Your task to perform on an android device: open device folders in google photos Image 0: 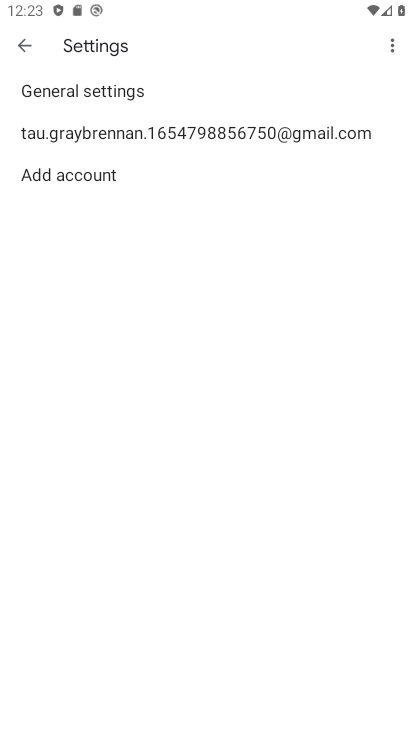
Step 0: press home button
Your task to perform on an android device: open device folders in google photos Image 1: 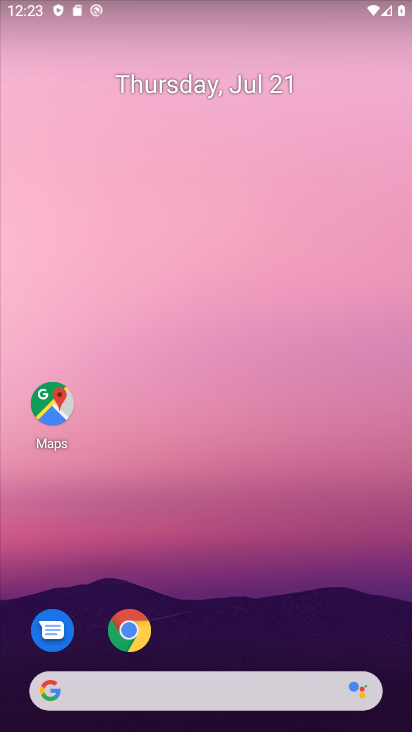
Step 1: drag from (208, 651) to (231, 128)
Your task to perform on an android device: open device folders in google photos Image 2: 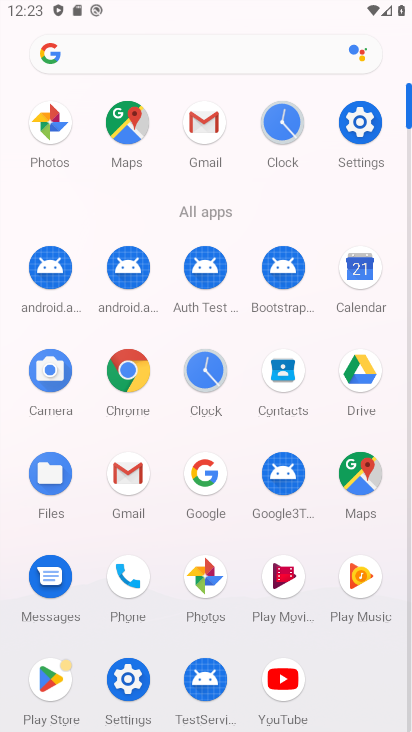
Step 2: click (203, 575)
Your task to perform on an android device: open device folders in google photos Image 3: 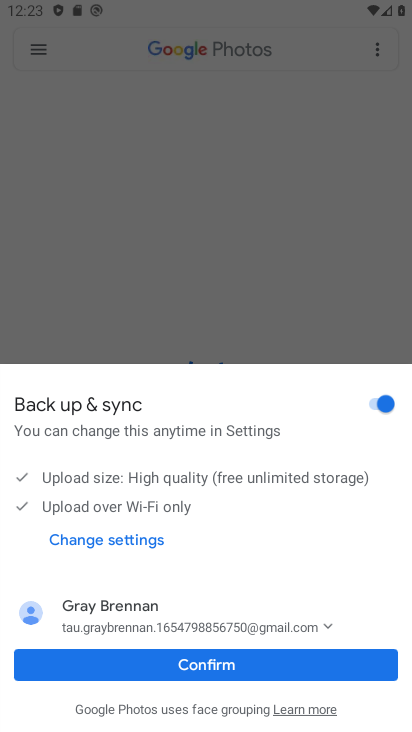
Step 3: click (194, 669)
Your task to perform on an android device: open device folders in google photos Image 4: 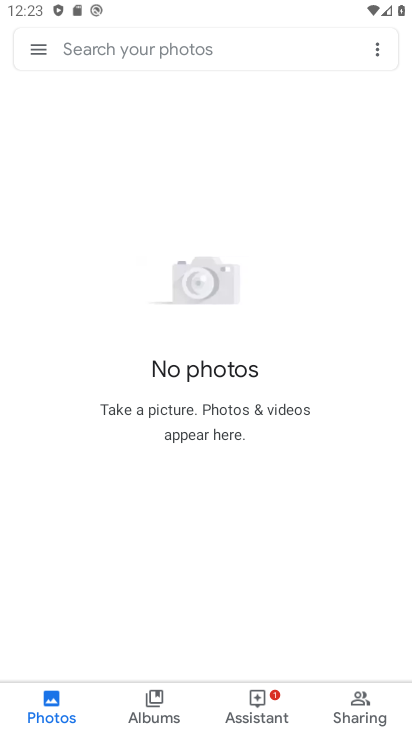
Step 4: click (36, 60)
Your task to perform on an android device: open device folders in google photos Image 5: 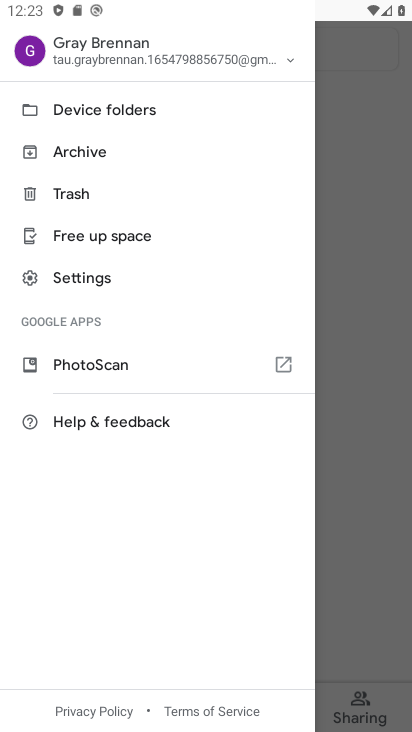
Step 5: click (159, 108)
Your task to perform on an android device: open device folders in google photos Image 6: 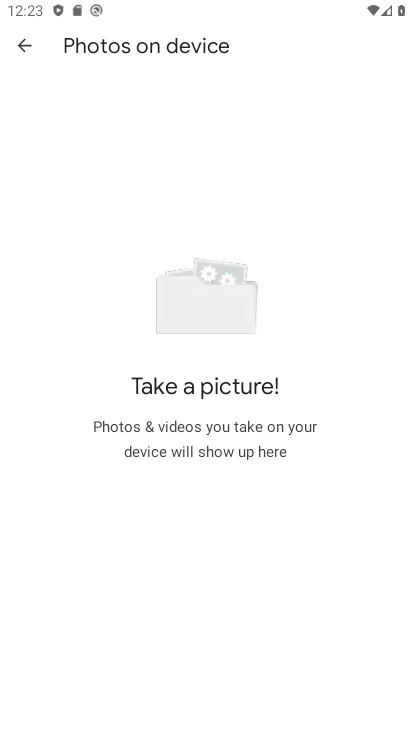
Step 6: task complete